Your task to perform on an android device: Search for Mexican restaurants on Maps Image 0: 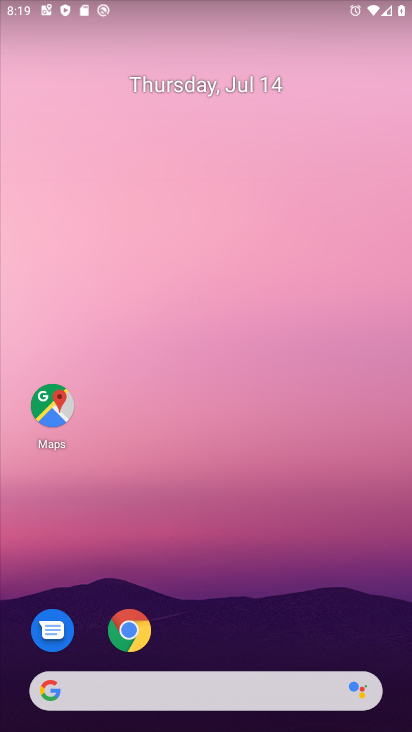
Step 0: drag from (202, 696) to (221, 161)
Your task to perform on an android device: Search for Mexican restaurants on Maps Image 1: 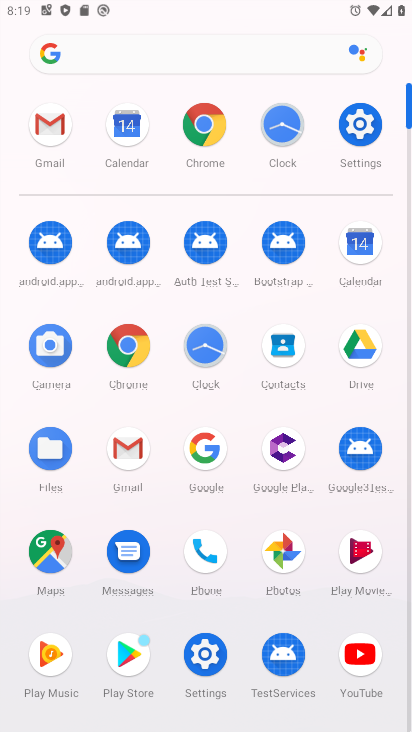
Step 1: click (44, 549)
Your task to perform on an android device: Search for Mexican restaurants on Maps Image 2: 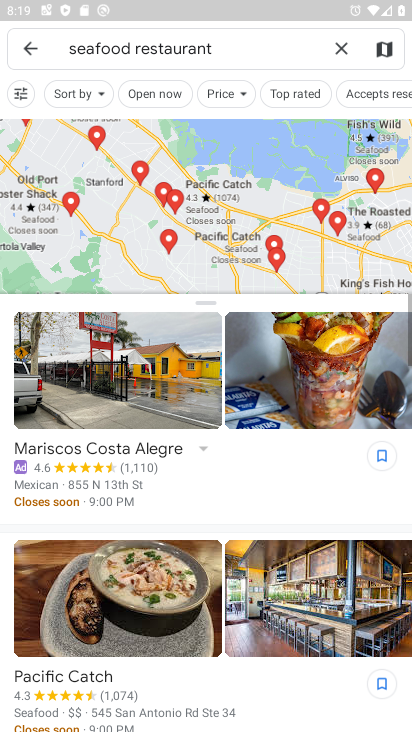
Step 2: click (349, 52)
Your task to perform on an android device: Search for Mexican restaurants on Maps Image 3: 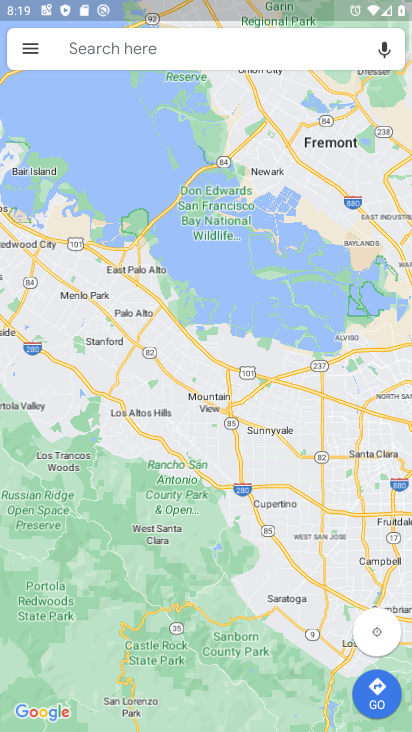
Step 3: click (208, 49)
Your task to perform on an android device: Search for Mexican restaurants on Maps Image 4: 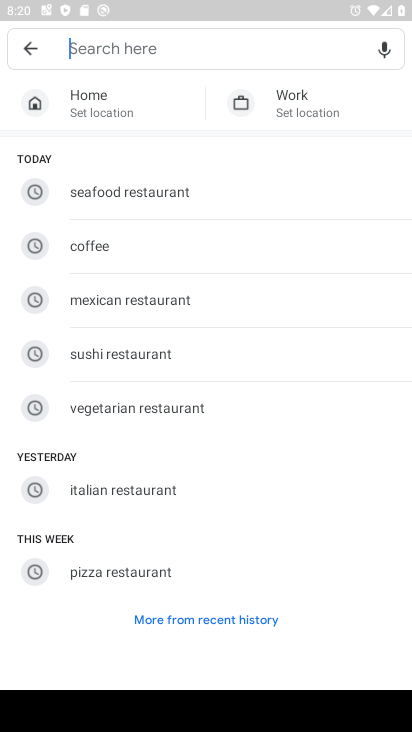
Step 4: type "Mexican restaurants"
Your task to perform on an android device: Search for Mexican restaurants on Maps Image 5: 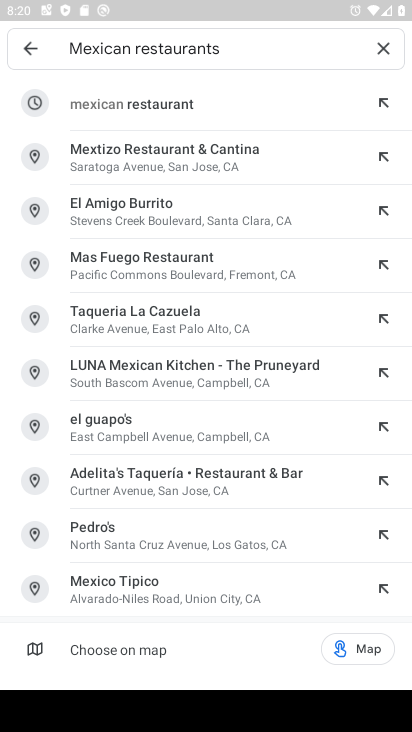
Step 5: click (133, 110)
Your task to perform on an android device: Search for Mexican restaurants on Maps Image 6: 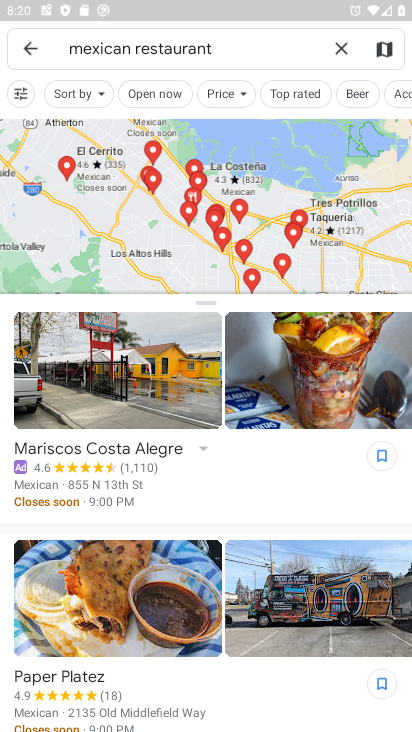
Step 6: task complete